Your task to perform on an android device: Go to Maps Image 0: 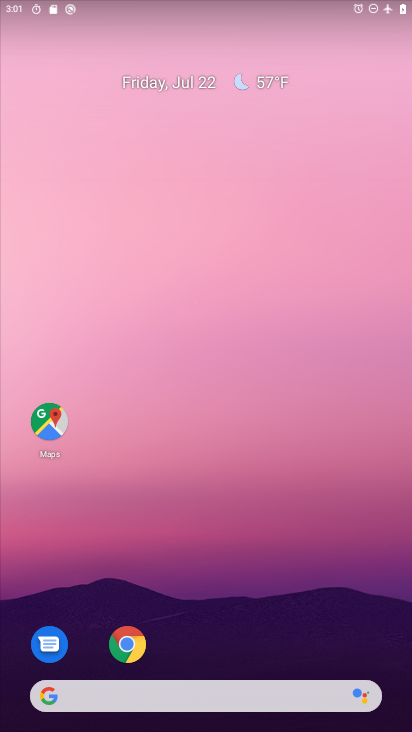
Step 0: click (48, 422)
Your task to perform on an android device: Go to Maps Image 1: 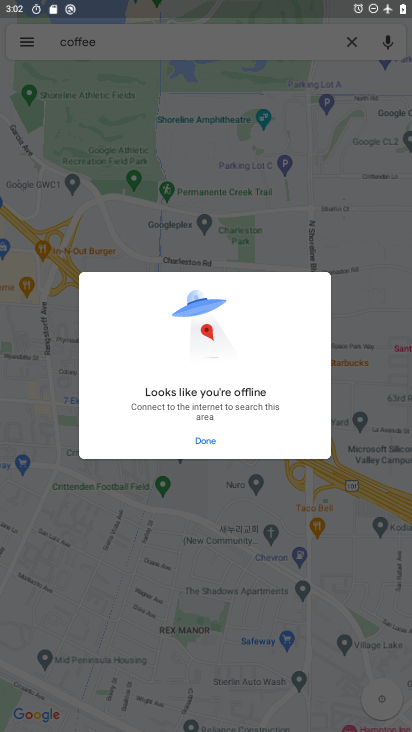
Step 1: task complete